Your task to perform on an android device: Open my contact list Image 0: 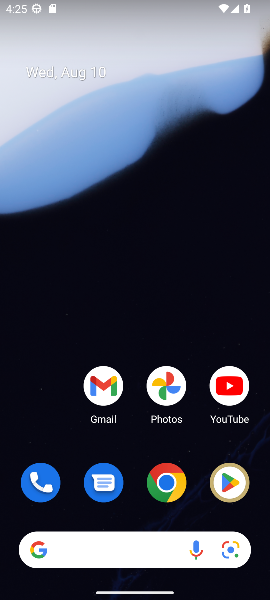
Step 0: drag from (42, 427) to (65, 11)
Your task to perform on an android device: Open my contact list Image 1: 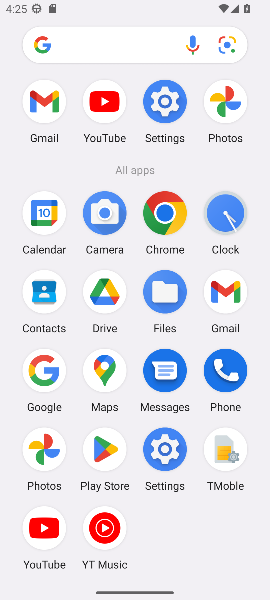
Step 1: click (51, 293)
Your task to perform on an android device: Open my contact list Image 2: 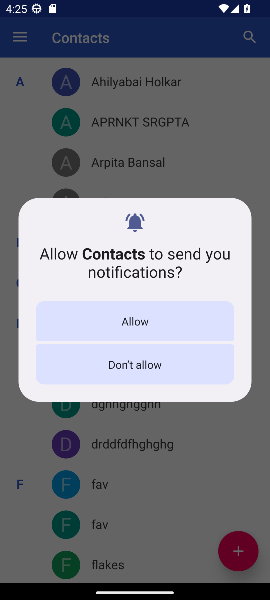
Step 2: click (179, 371)
Your task to perform on an android device: Open my contact list Image 3: 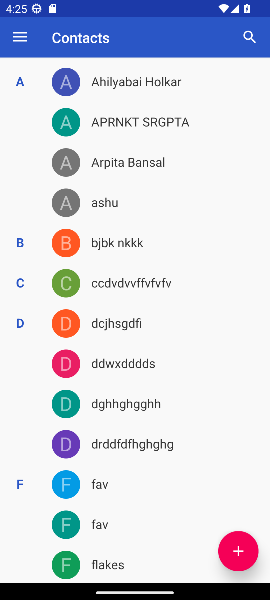
Step 3: task complete